Your task to perform on an android device: turn off wifi Image 0: 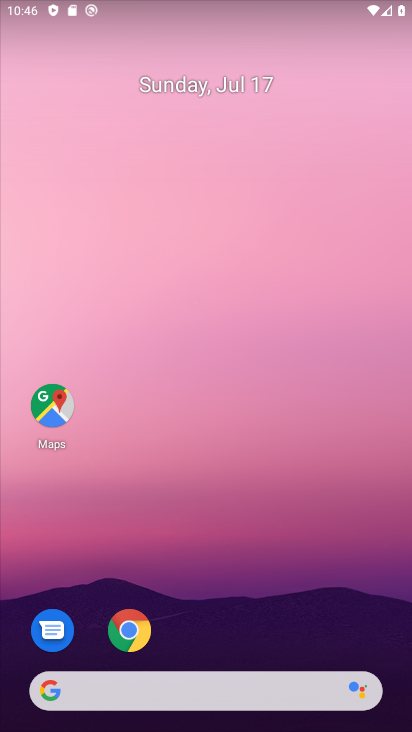
Step 0: drag from (223, 652) to (263, 102)
Your task to perform on an android device: turn off wifi Image 1: 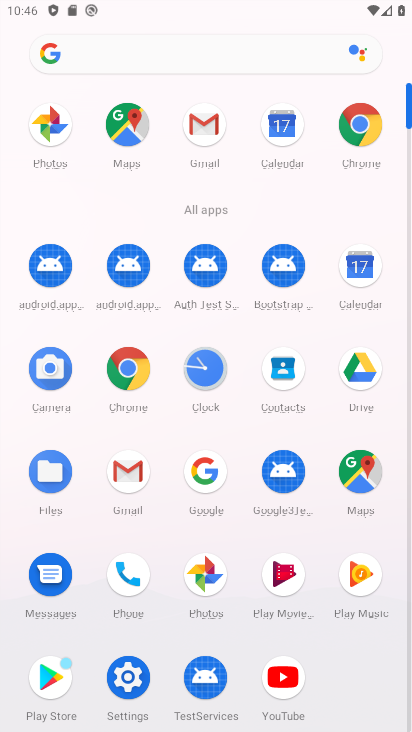
Step 1: click (127, 670)
Your task to perform on an android device: turn off wifi Image 2: 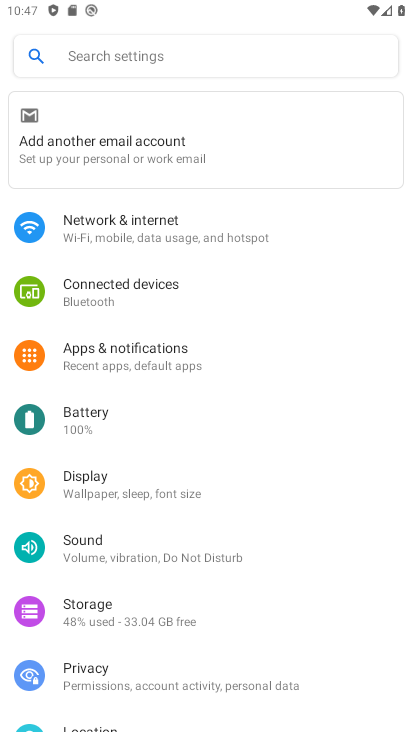
Step 2: click (116, 234)
Your task to perform on an android device: turn off wifi Image 3: 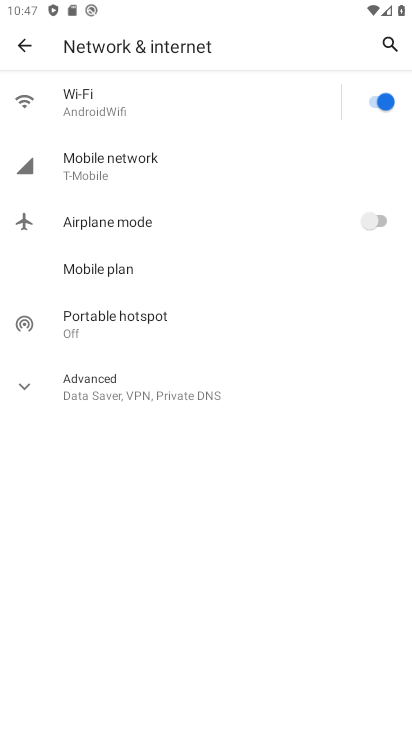
Step 3: click (378, 97)
Your task to perform on an android device: turn off wifi Image 4: 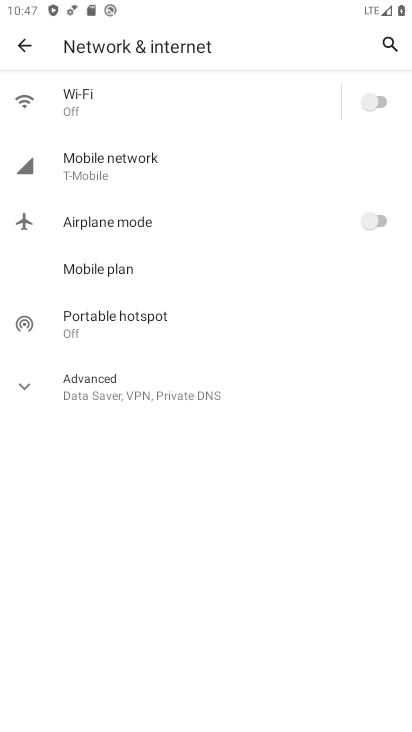
Step 4: task complete